Your task to perform on an android device: show emergency info Image 0: 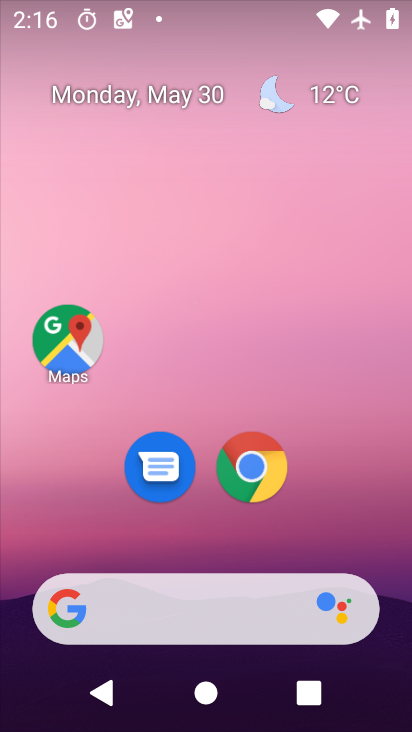
Step 0: drag from (389, 605) to (380, 91)
Your task to perform on an android device: show emergency info Image 1: 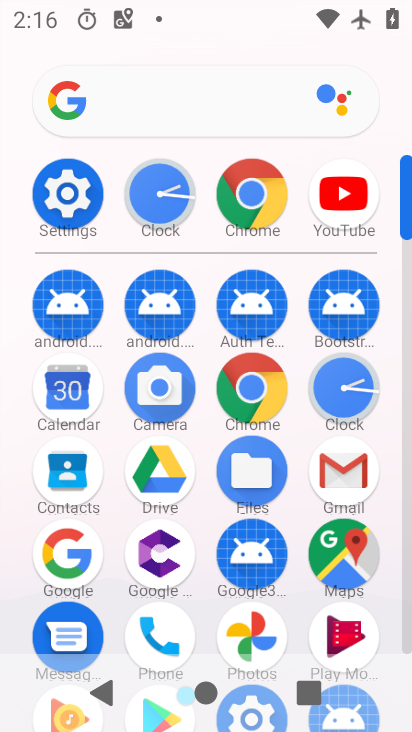
Step 1: click (63, 187)
Your task to perform on an android device: show emergency info Image 2: 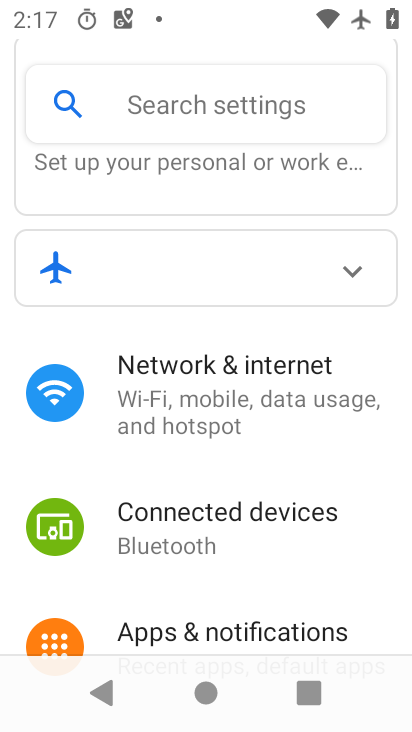
Step 2: drag from (281, 596) to (307, 366)
Your task to perform on an android device: show emergency info Image 3: 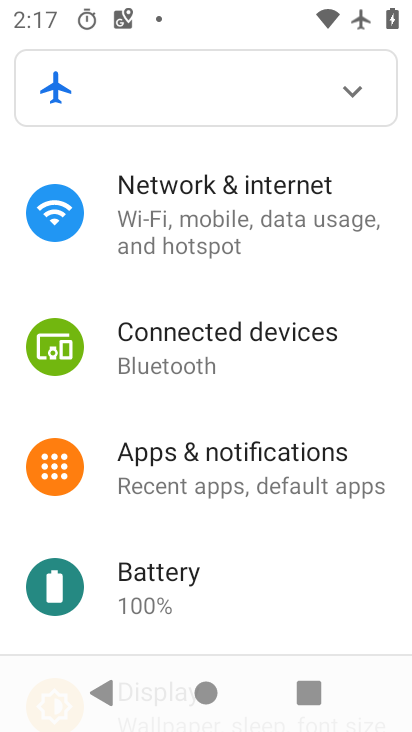
Step 3: drag from (311, 264) to (340, 533)
Your task to perform on an android device: show emergency info Image 4: 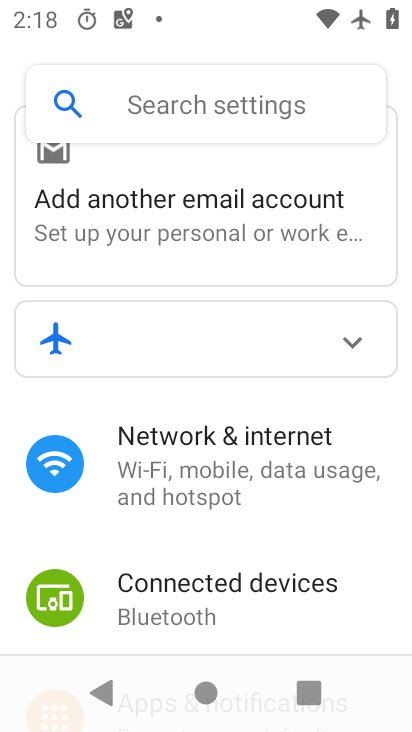
Step 4: drag from (288, 587) to (304, 140)
Your task to perform on an android device: show emergency info Image 5: 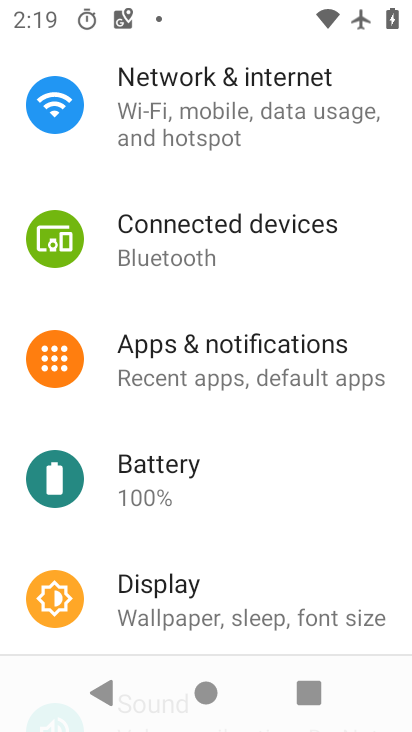
Step 5: drag from (292, 574) to (325, 285)
Your task to perform on an android device: show emergency info Image 6: 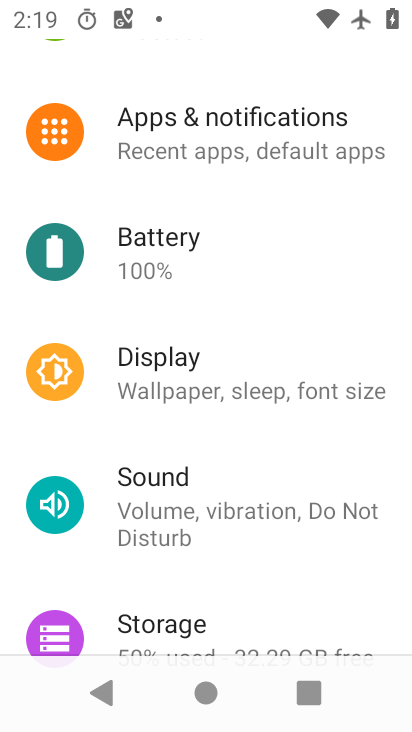
Step 6: drag from (261, 608) to (300, 302)
Your task to perform on an android device: show emergency info Image 7: 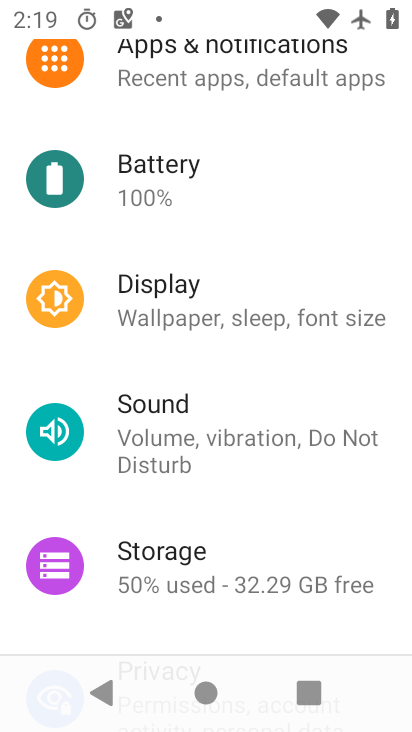
Step 7: drag from (289, 543) to (315, 296)
Your task to perform on an android device: show emergency info Image 8: 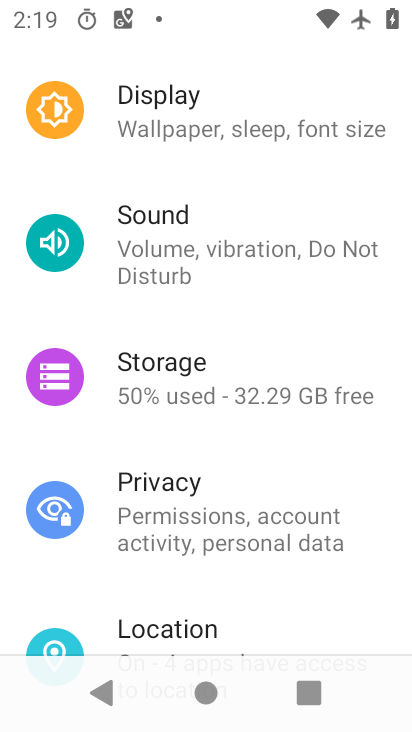
Step 8: drag from (286, 635) to (337, 225)
Your task to perform on an android device: show emergency info Image 9: 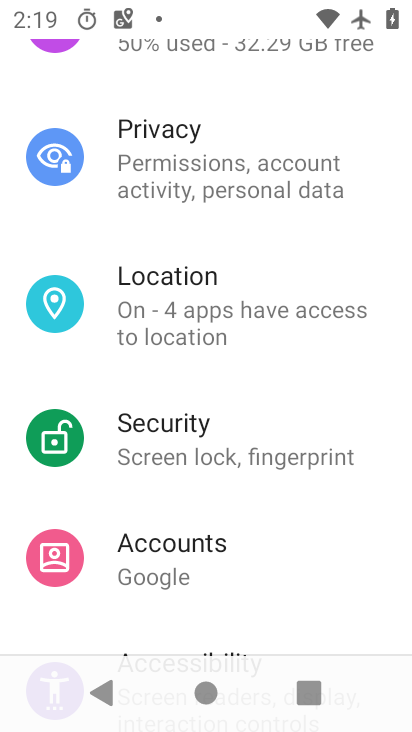
Step 9: drag from (259, 604) to (281, 206)
Your task to perform on an android device: show emergency info Image 10: 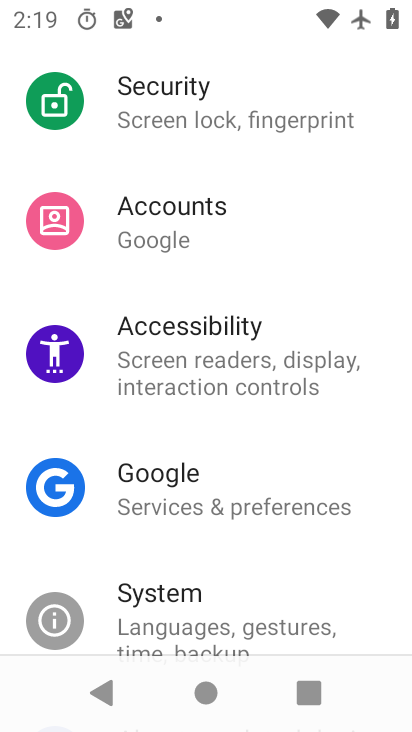
Step 10: drag from (345, 619) to (351, 225)
Your task to perform on an android device: show emergency info Image 11: 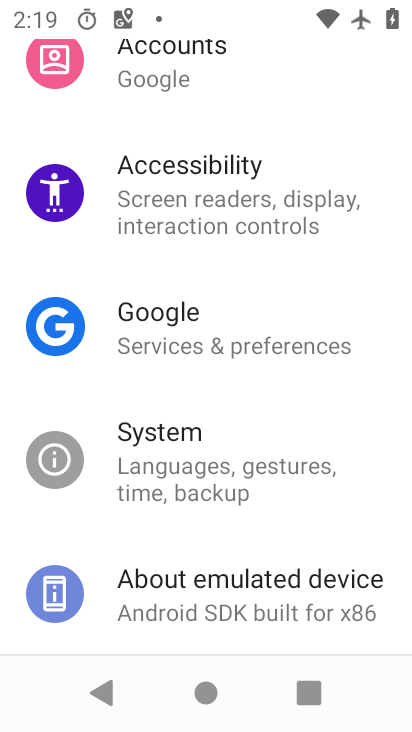
Step 11: click (214, 605)
Your task to perform on an android device: show emergency info Image 12: 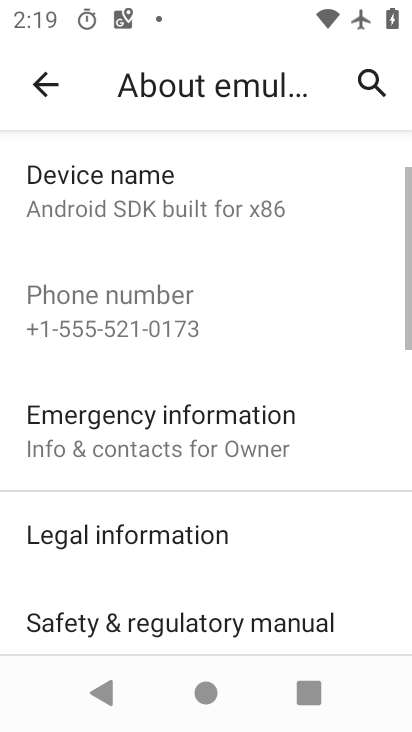
Step 12: click (157, 429)
Your task to perform on an android device: show emergency info Image 13: 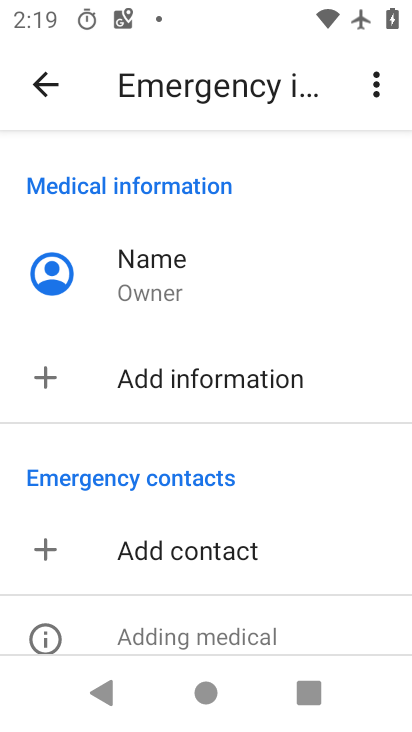
Step 13: task complete